Your task to perform on an android device: search for starred emails in the gmail app Image 0: 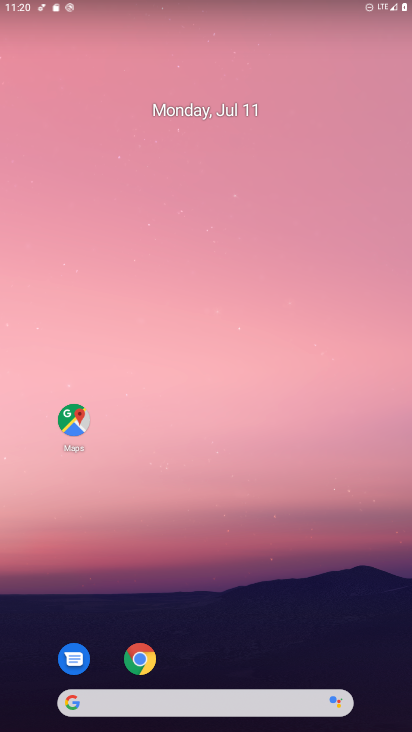
Step 0: drag from (295, 661) to (220, 103)
Your task to perform on an android device: search for starred emails in the gmail app Image 1: 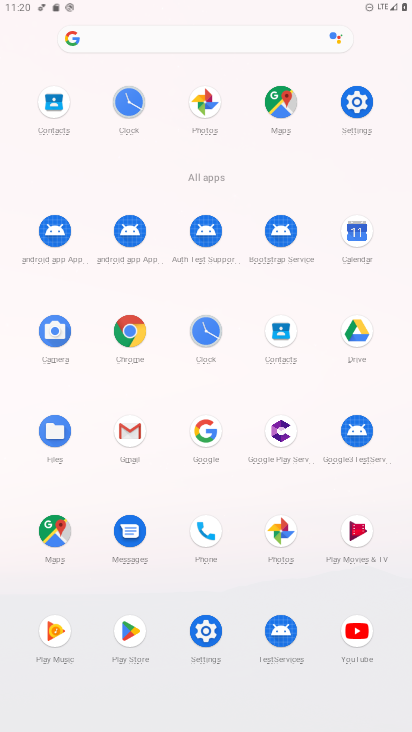
Step 1: click (130, 436)
Your task to perform on an android device: search for starred emails in the gmail app Image 2: 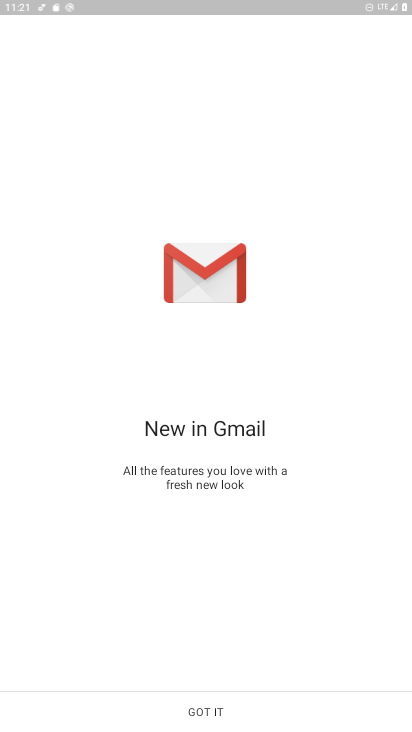
Step 2: click (209, 714)
Your task to perform on an android device: search for starred emails in the gmail app Image 3: 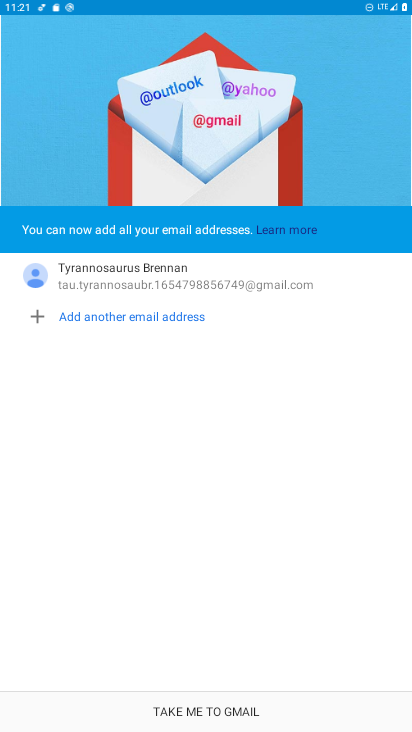
Step 3: click (209, 714)
Your task to perform on an android device: search for starred emails in the gmail app Image 4: 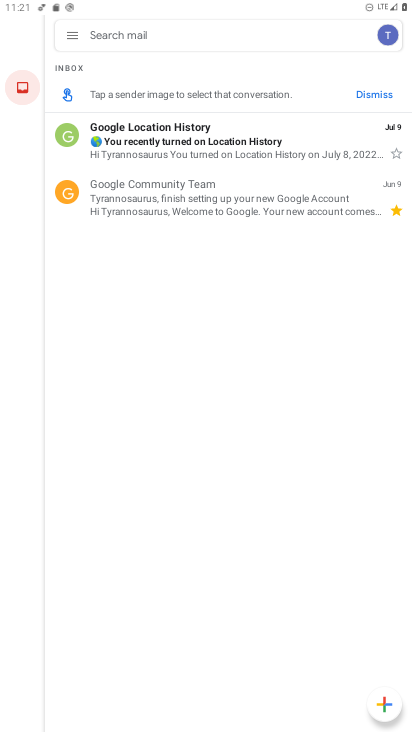
Step 4: click (75, 42)
Your task to perform on an android device: search for starred emails in the gmail app Image 5: 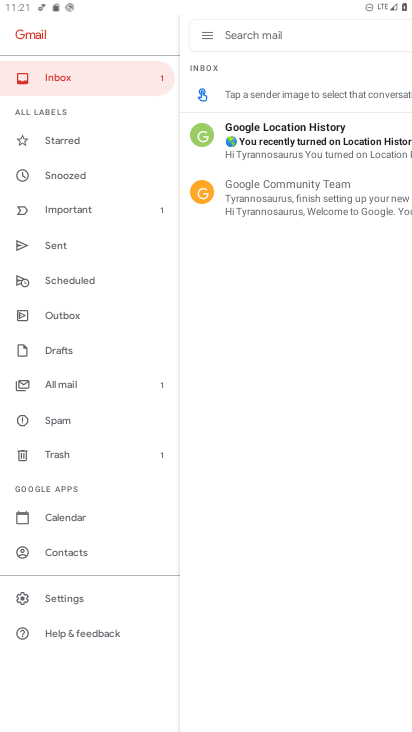
Step 5: click (77, 132)
Your task to perform on an android device: search for starred emails in the gmail app Image 6: 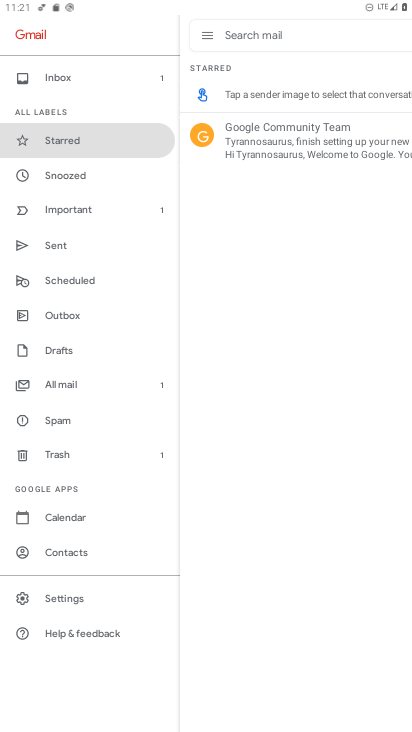
Step 6: task complete